Your task to perform on an android device: open device folders in google photos Image 0: 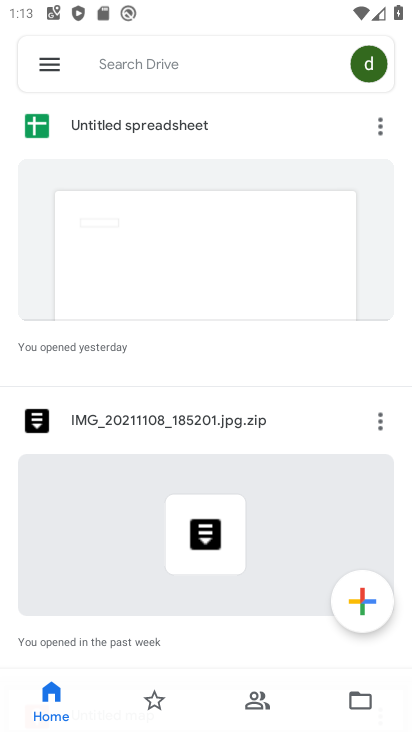
Step 0: press home button
Your task to perform on an android device: open device folders in google photos Image 1: 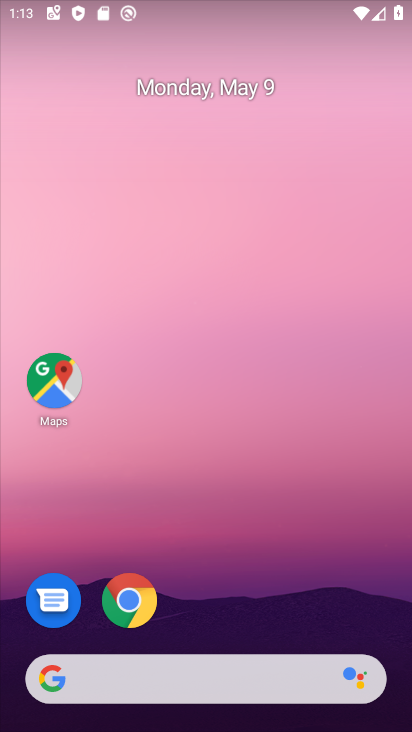
Step 1: drag from (235, 636) to (263, 33)
Your task to perform on an android device: open device folders in google photos Image 2: 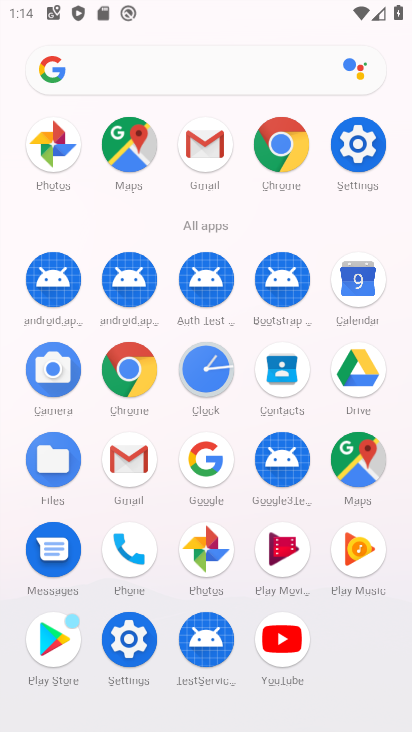
Step 2: click (44, 152)
Your task to perform on an android device: open device folders in google photos Image 3: 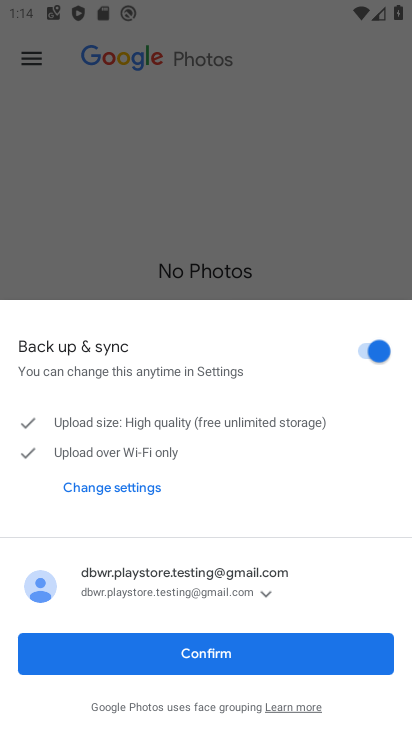
Step 3: click (241, 655)
Your task to perform on an android device: open device folders in google photos Image 4: 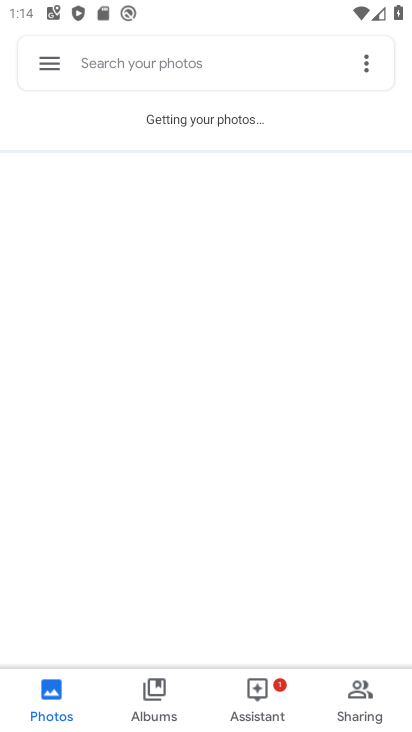
Step 4: click (47, 72)
Your task to perform on an android device: open device folders in google photos Image 5: 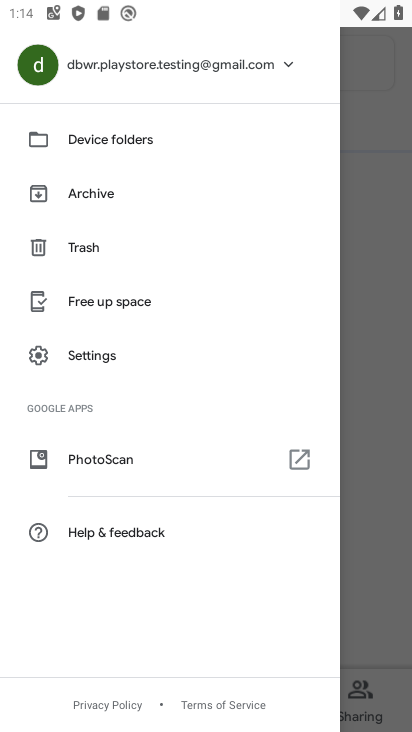
Step 5: click (132, 150)
Your task to perform on an android device: open device folders in google photos Image 6: 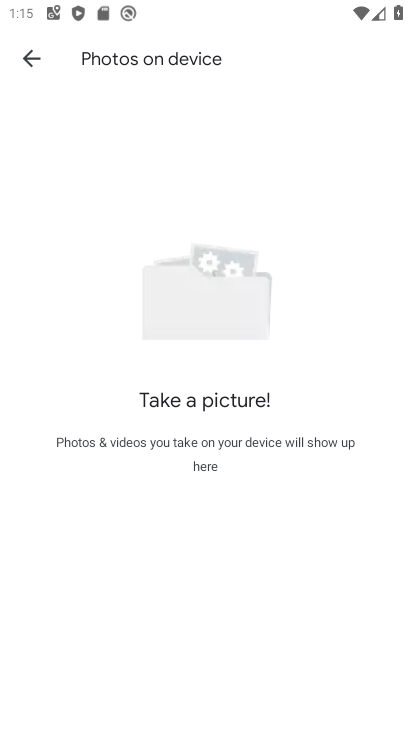
Step 6: task complete